Your task to perform on an android device: Open Amazon Image 0: 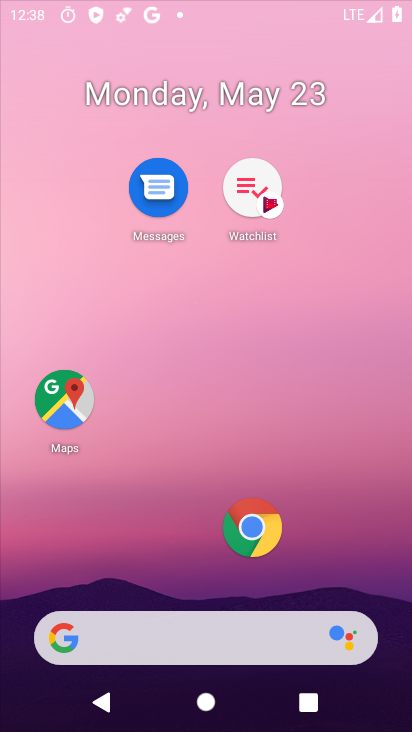
Step 0: click (127, 39)
Your task to perform on an android device: Open Amazon Image 1: 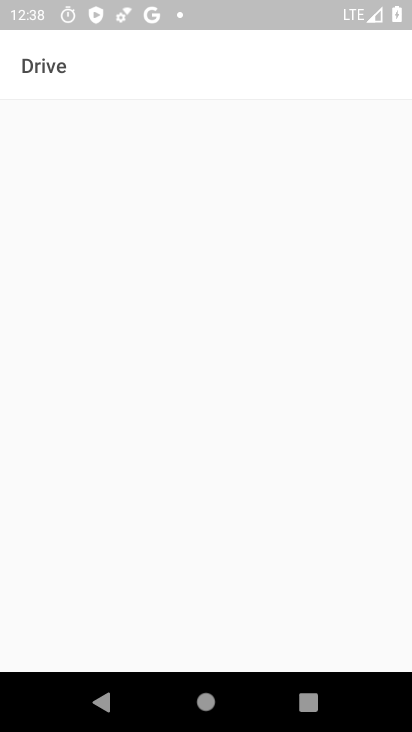
Step 1: press back button
Your task to perform on an android device: Open Amazon Image 2: 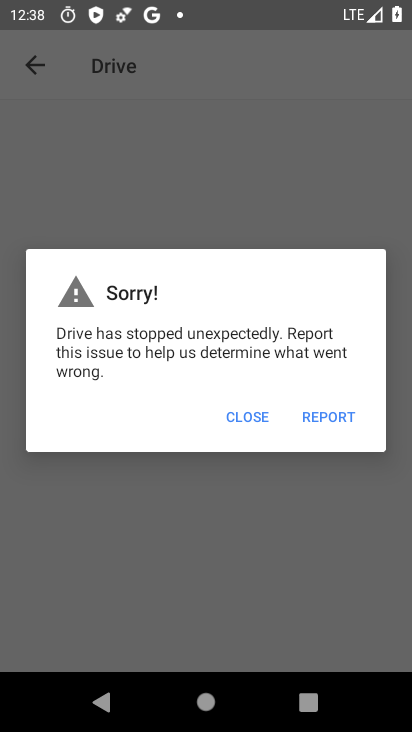
Step 2: press back button
Your task to perform on an android device: Open Amazon Image 3: 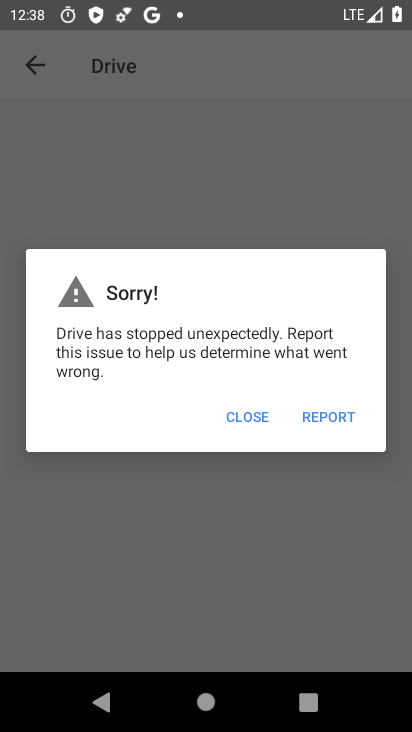
Step 3: click (249, 414)
Your task to perform on an android device: Open Amazon Image 4: 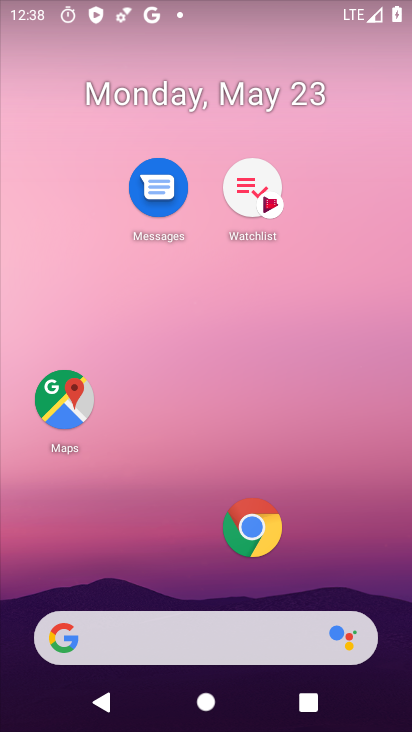
Step 4: click (249, 405)
Your task to perform on an android device: Open Amazon Image 5: 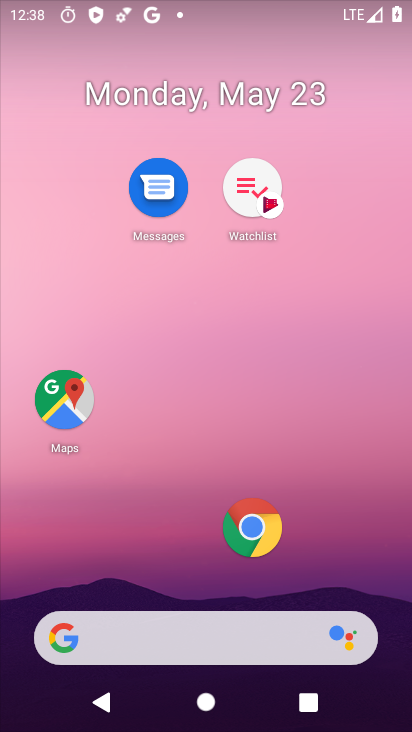
Step 5: click (250, 407)
Your task to perform on an android device: Open Amazon Image 6: 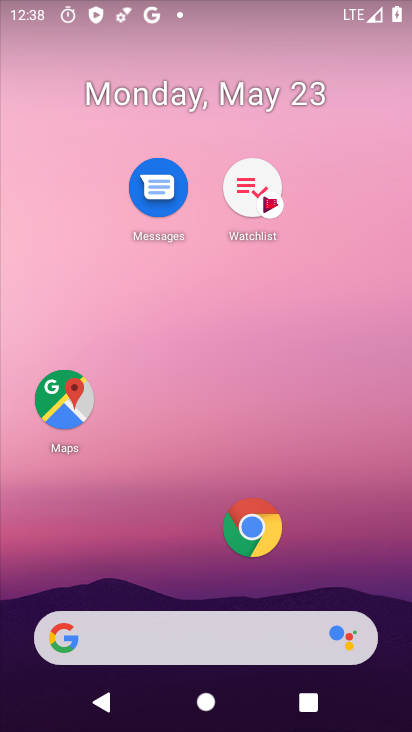
Step 6: click (147, 168)
Your task to perform on an android device: Open Amazon Image 7: 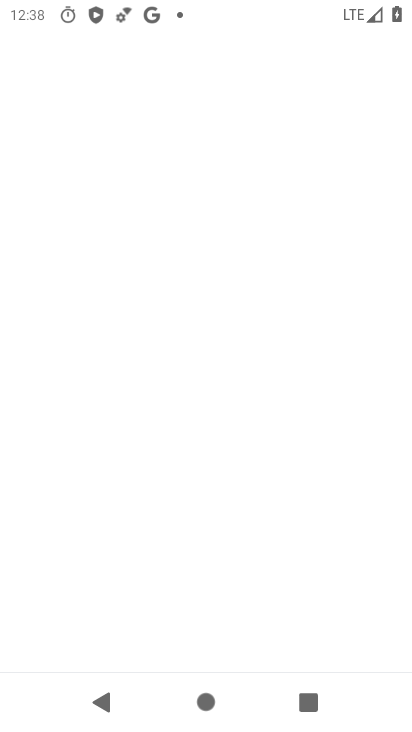
Step 7: drag from (283, 623) to (243, 258)
Your task to perform on an android device: Open Amazon Image 8: 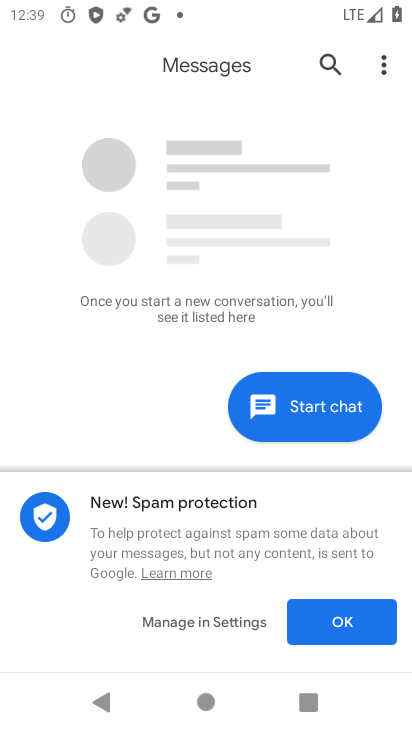
Step 8: click (344, 614)
Your task to perform on an android device: Open Amazon Image 9: 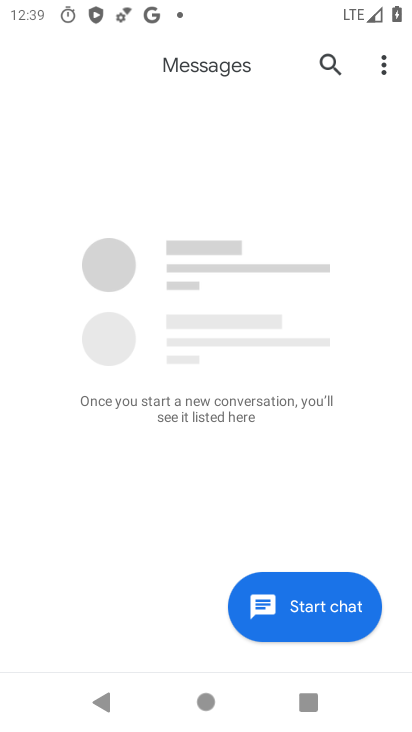
Step 9: press home button
Your task to perform on an android device: Open Amazon Image 10: 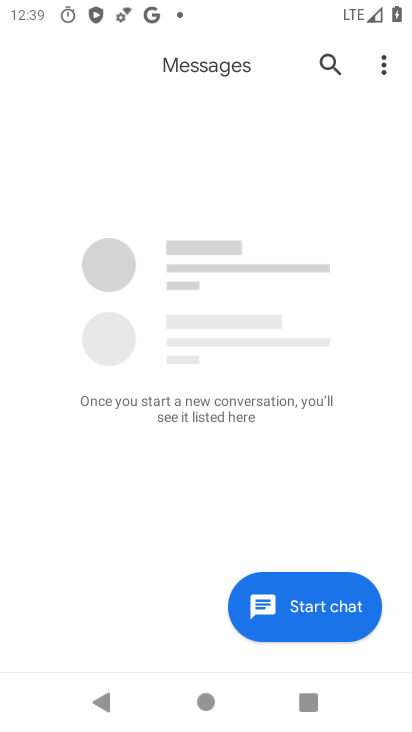
Step 10: press home button
Your task to perform on an android device: Open Amazon Image 11: 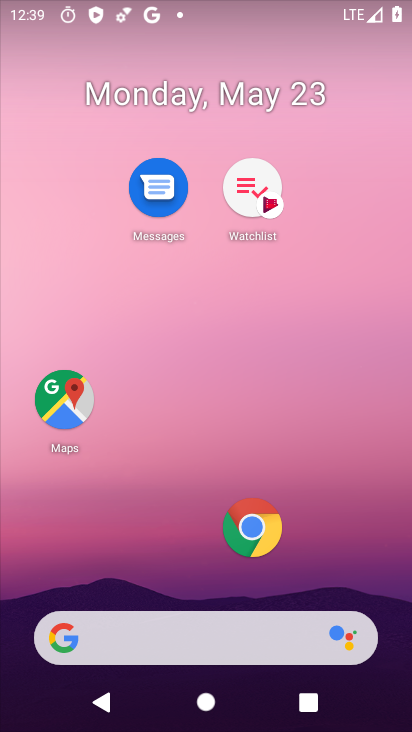
Step 11: drag from (272, 726) to (227, 176)
Your task to perform on an android device: Open Amazon Image 12: 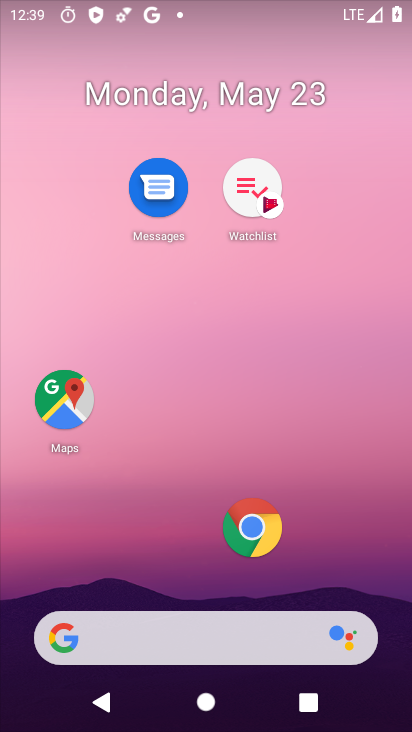
Step 12: drag from (267, 705) to (262, 286)
Your task to perform on an android device: Open Amazon Image 13: 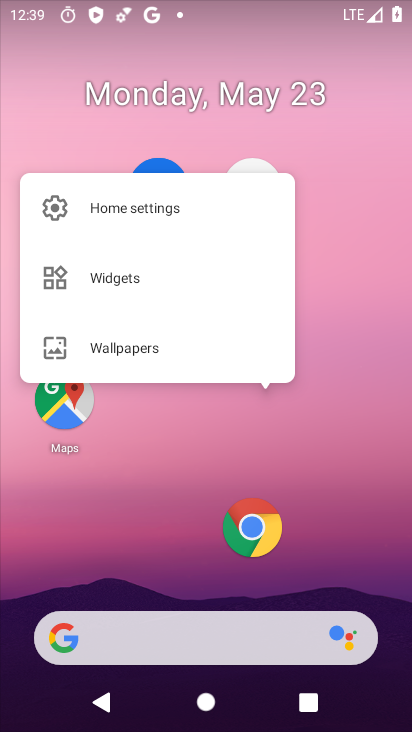
Step 13: click (321, 484)
Your task to perform on an android device: Open Amazon Image 14: 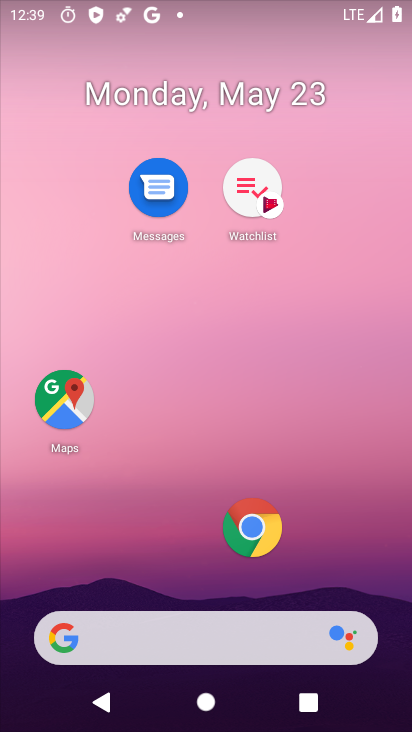
Step 14: drag from (349, 656) to (293, 231)
Your task to perform on an android device: Open Amazon Image 15: 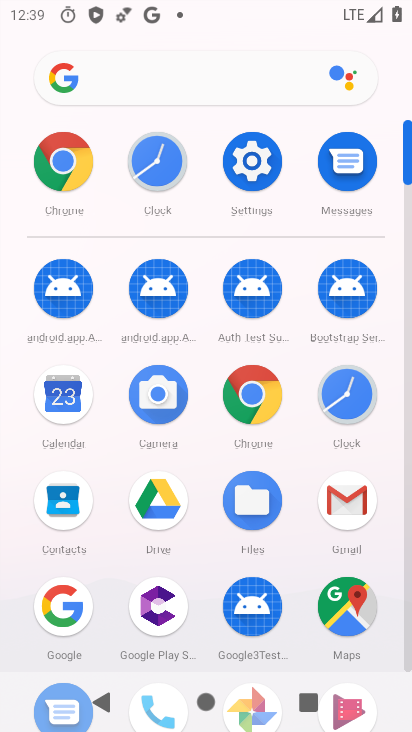
Step 15: click (250, 383)
Your task to perform on an android device: Open Amazon Image 16: 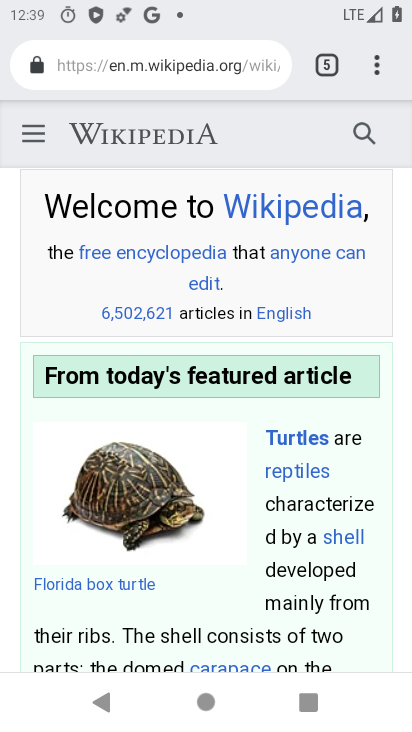
Step 16: drag from (376, 68) to (144, 124)
Your task to perform on an android device: Open Amazon Image 17: 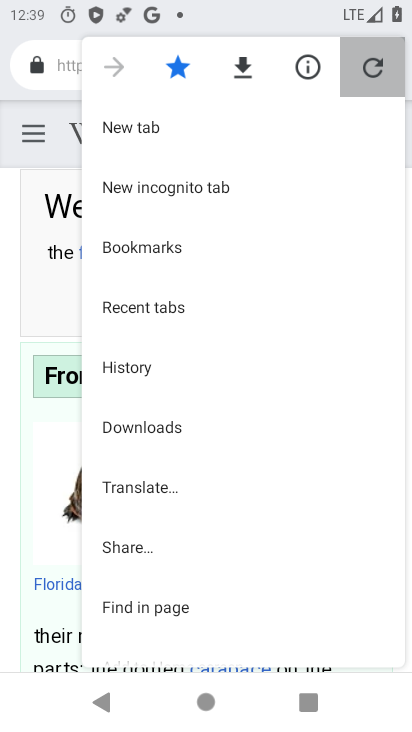
Step 17: drag from (371, 78) to (144, 124)
Your task to perform on an android device: Open Amazon Image 18: 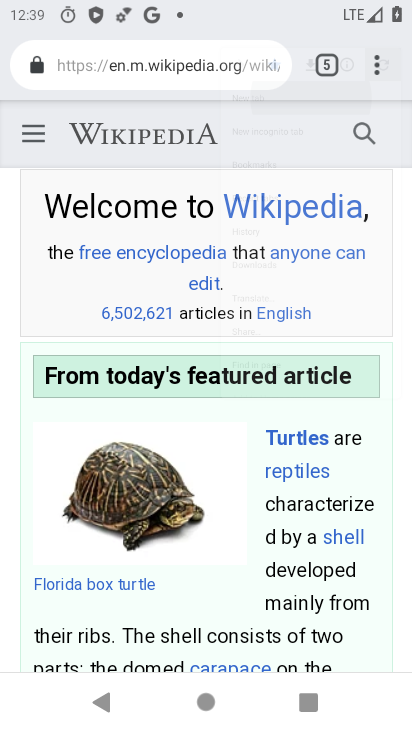
Step 18: click (144, 124)
Your task to perform on an android device: Open Amazon Image 19: 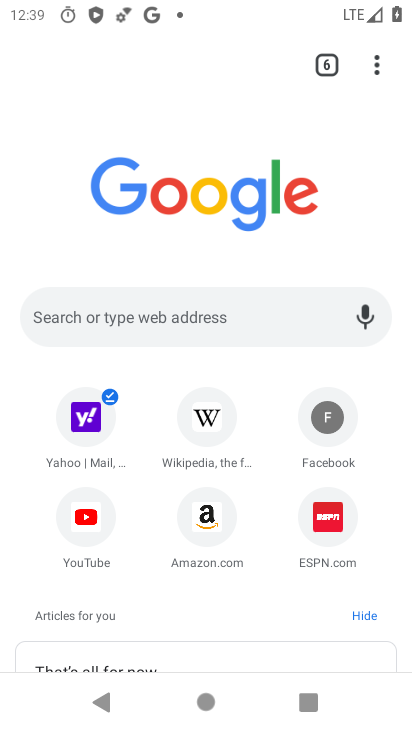
Step 19: click (109, 312)
Your task to perform on an android device: Open Amazon Image 20: 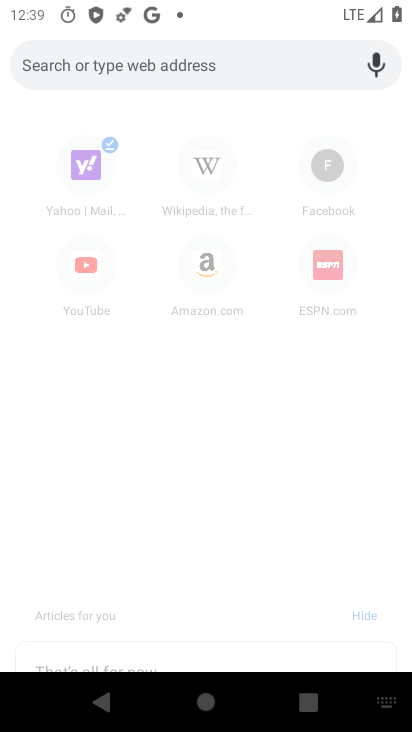
Step 20: type "amazon"
Your task to perform on an android device: Open Amazon Image 21: 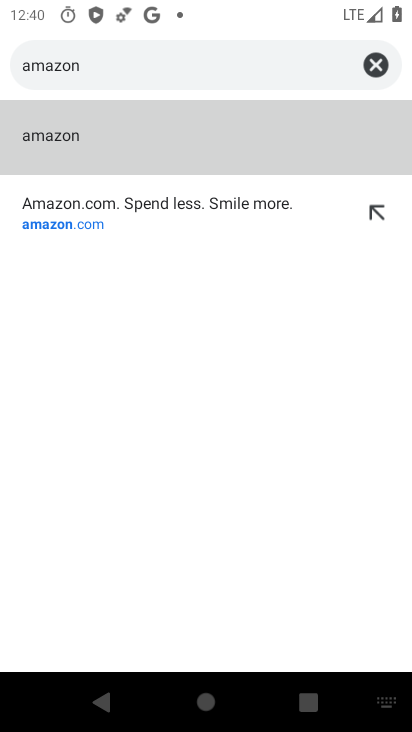
Step 21: click (59, 224)
Your task to perform on an android device: Open Amazon Image 22: 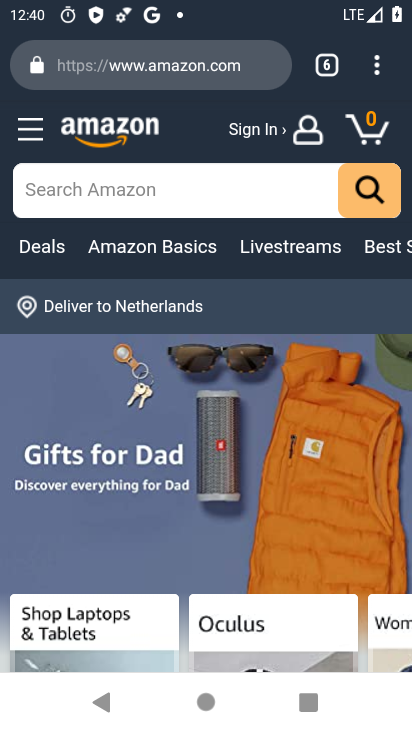
Step 22: task complete